Your task to perform on an android device: Show me popular games on the Play Store Image 0: 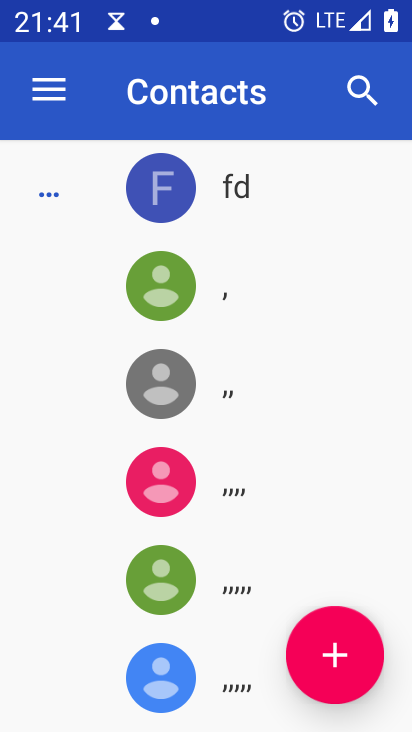
Step 0: press home button
Your task to perform on an android device: Show me popular games on the Play Store Image 1: 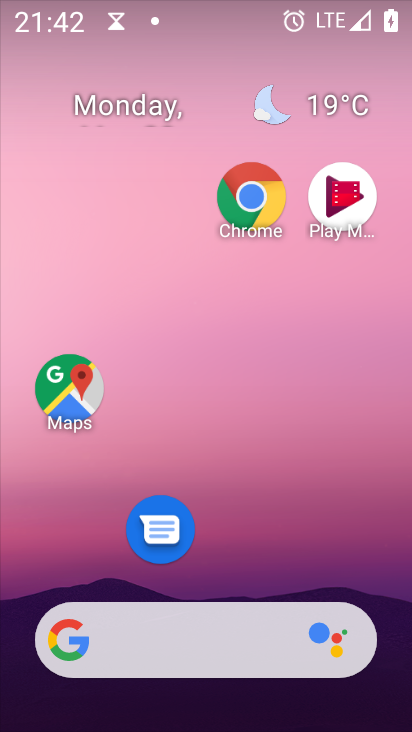
Step 1: click (151, 209)
Your task to perform on an android device: Show me popular games on the Play Store Image 2: 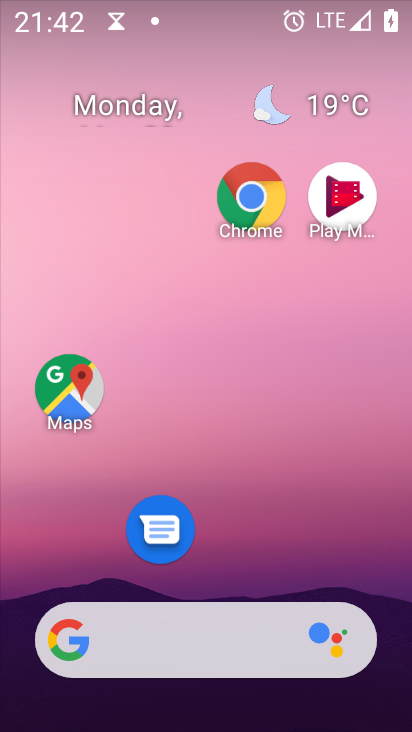
Step 2: drag from (229, 543) to (219, 143)
Your task to perform on an android device: Show me popular games on the Play Store Image 3: 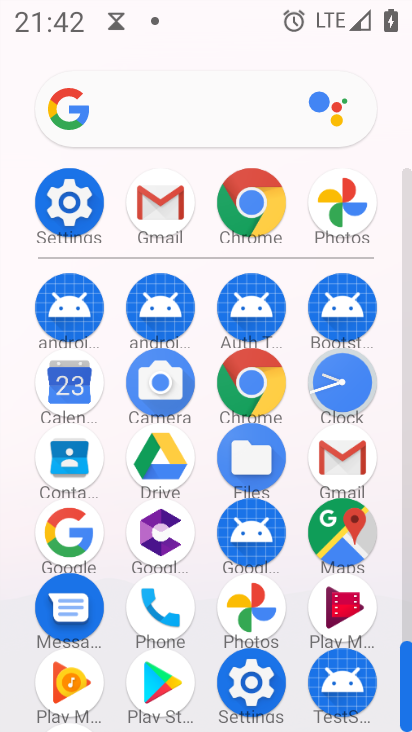
Step 3: click (161, 688)
Your task to perform on an android device: Show me popular games on the Play Store Image 4: 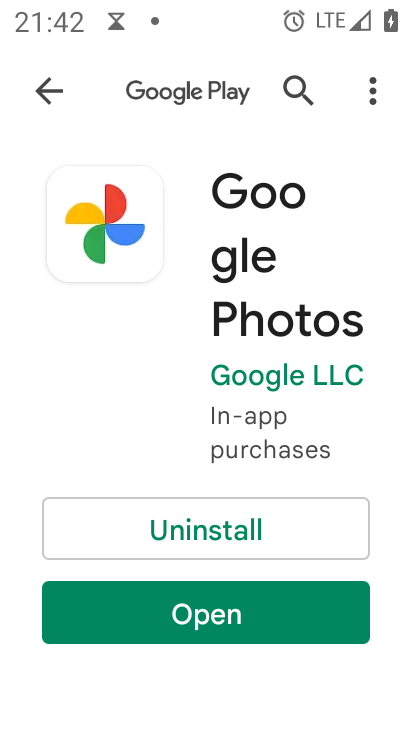
Step 4: click (162, 600)
Your task to perform on an android device: Show me popular games on the Play Store Image 5: 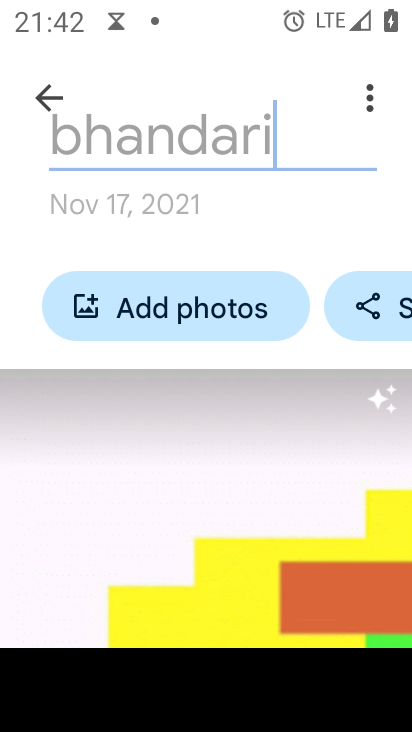
Step 5: press back button
Your task to perform on an android device: Show me popular games on the Play Store Image 6: 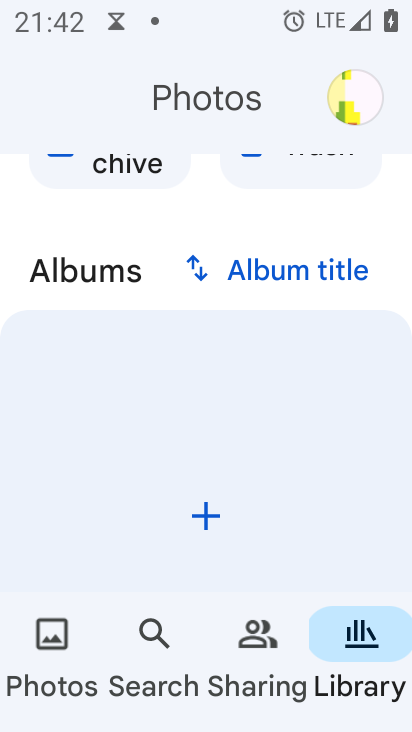
Step 6: press back button
Your task to perform on an android device: Show me popular games on the Play Store Image 7: 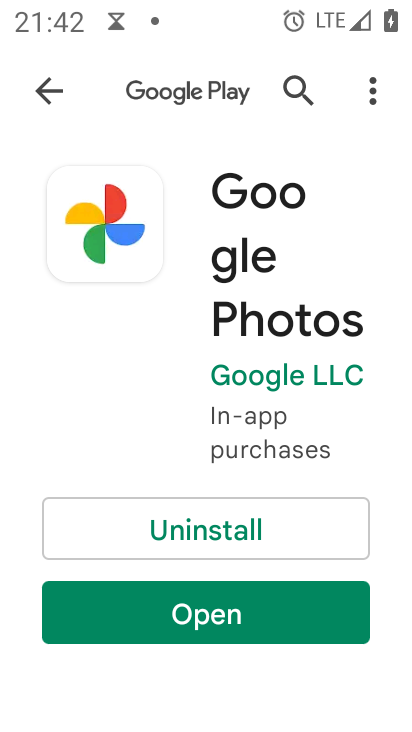
Step 7: press back button
Your task to perform on an android device: Show me popular games on the Play Store Image 8: 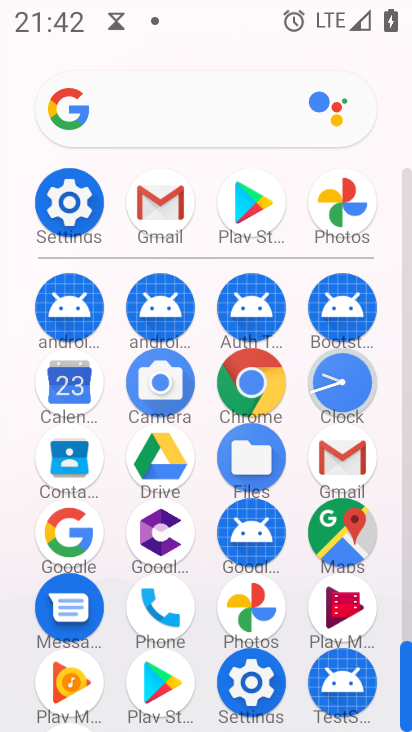
Step 8: click (158, 678)
Your task to perform on an android device: Show me popular games on the Play Store Image 9: 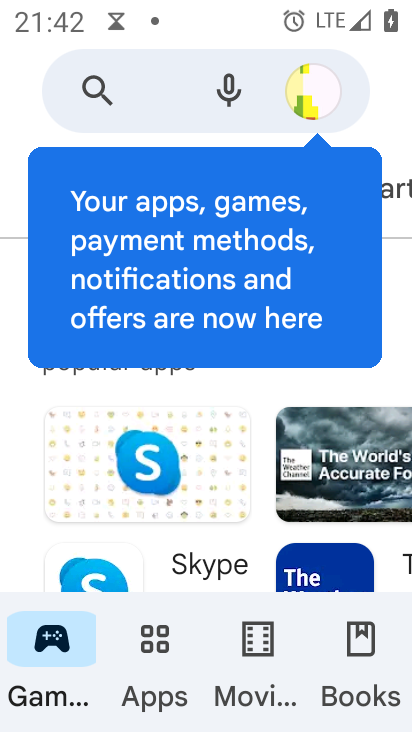
Step 9: task complete